Your task to perform on an android device: Open Chrome and go to the settings page Image 0: 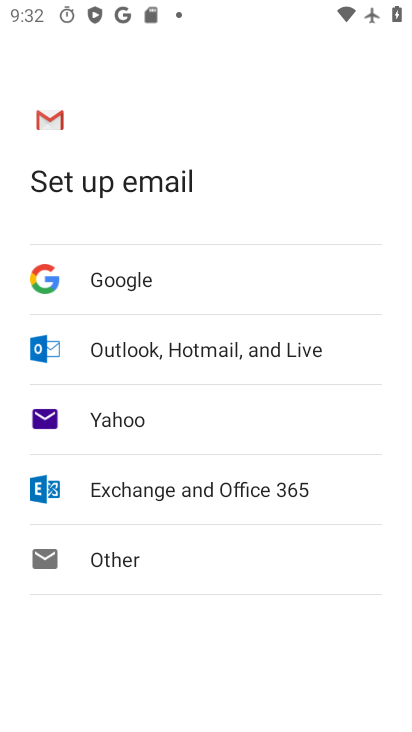
Step 0: click (377, 725)
Your task to perform on an android device: Open Chrome and go to the settings page Image 1: 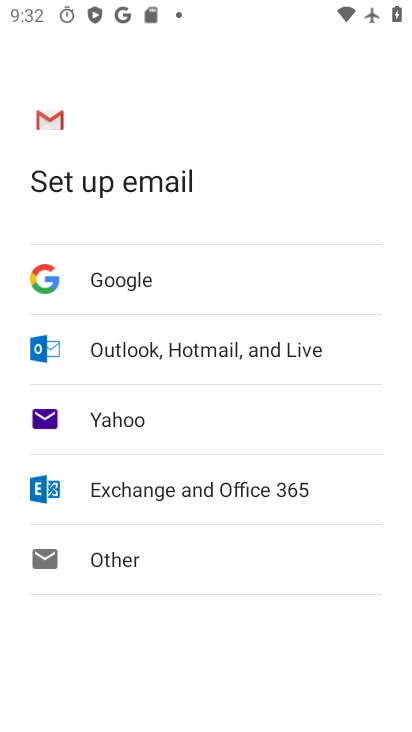
Step 1: press home button
Your task to perform on an android device: Open Chrome and go to the settings page Image 2: 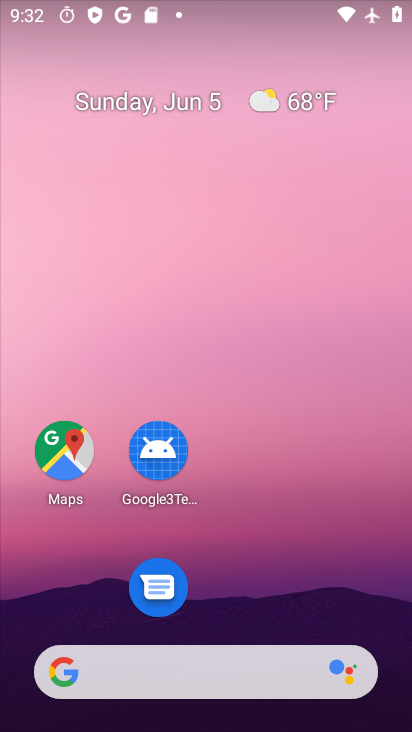
Step 2: drag from (348, 591) to (336, 123)
Your task to perform on an android device: Open Chrome and go to the settings page Image 3: 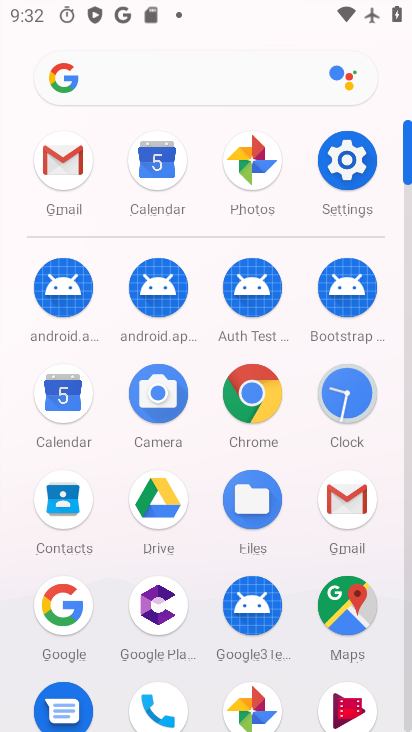
Step 3: click (236, 394)
Your task to perform on an android device: Open Chrome and go to the settings page Image 4: 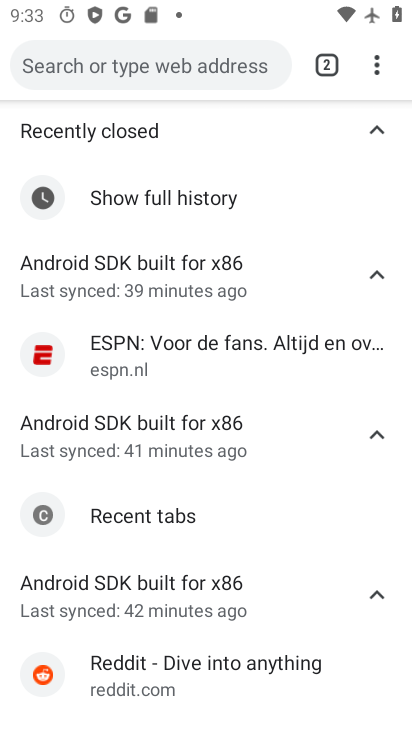
Step 4: click (373, 63)
Your task to perform on an android device: Open Chrome and go to the settings page Image 5: 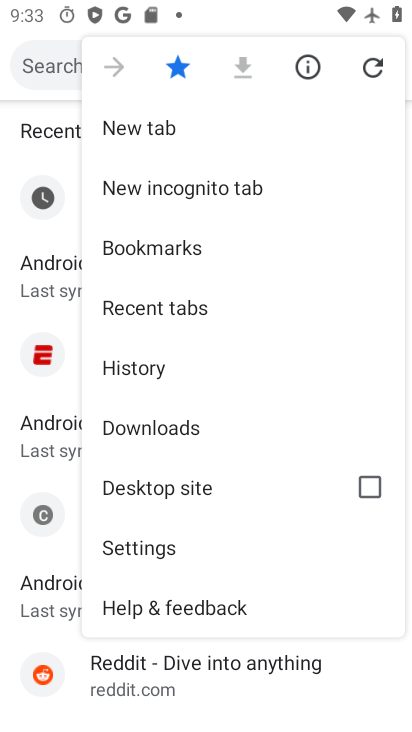
Step 5: click (174, 548)
Your task to perform on an android device: Open Chrome and go to the settings page Image 6: 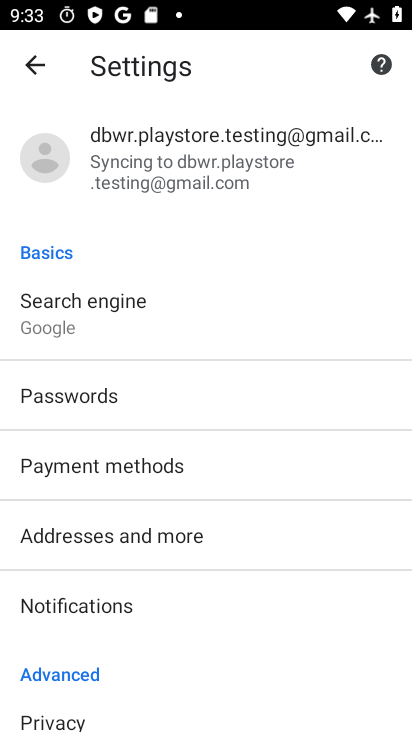
Step 6: task complete